Your task to perform on an android device: Open Google Chrome and open the bookmarks view Image 0: 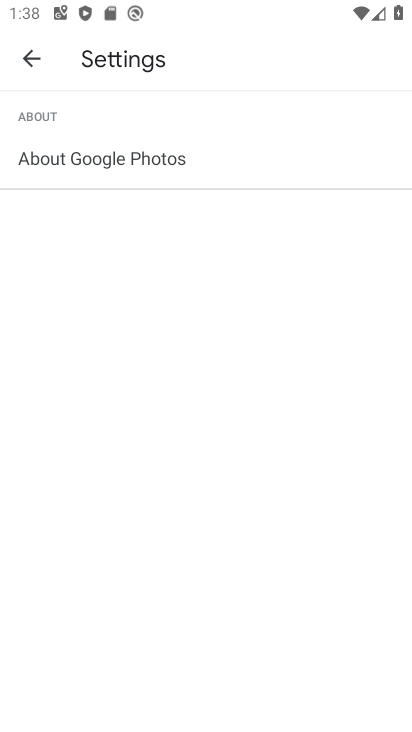
Step 0: drag from (230, 711) to (227, 153)
Your task to perform on an android device: Open Google Chrome and open the bookmarks view Image 1: 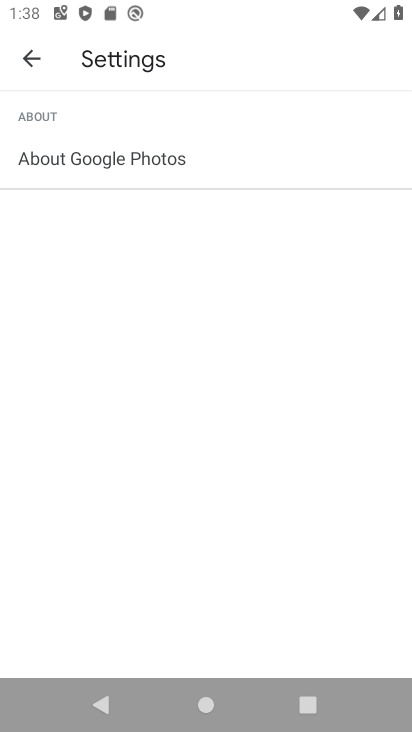
Step 1: press home button
Your task to perform on an android device: Open Google Chrome and open the bookmarks view Image 2: 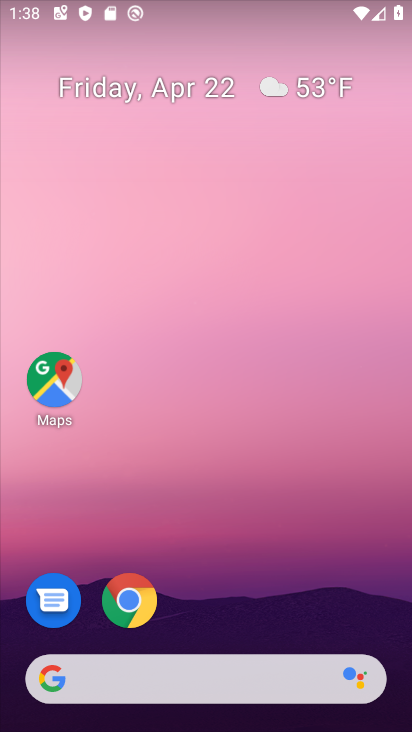
Step 2: drag from (225, 509) to (225, 176)
Your task to perform on an android device: Open Google Chrome and open the bookmarks view Image 3: 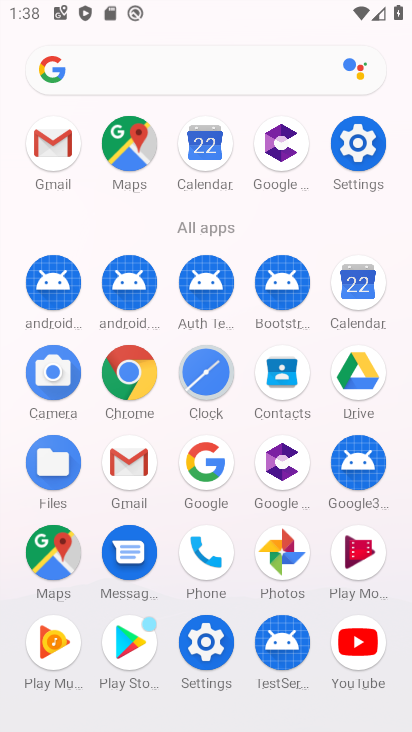
Step 3: click (132, 374)
Your task to perform on an android device: Open Google Chrome and open the bookmarks view Image 4: 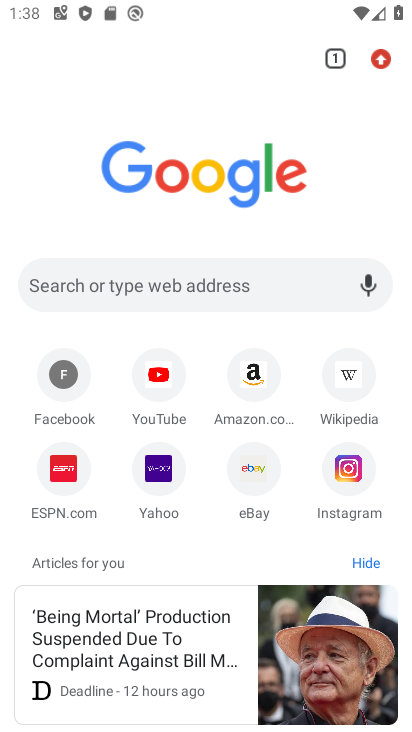
Step 4: click (382, 65)
Your task to perform on an android device: Open Google Chrome and open the bookmarks view Image 5: 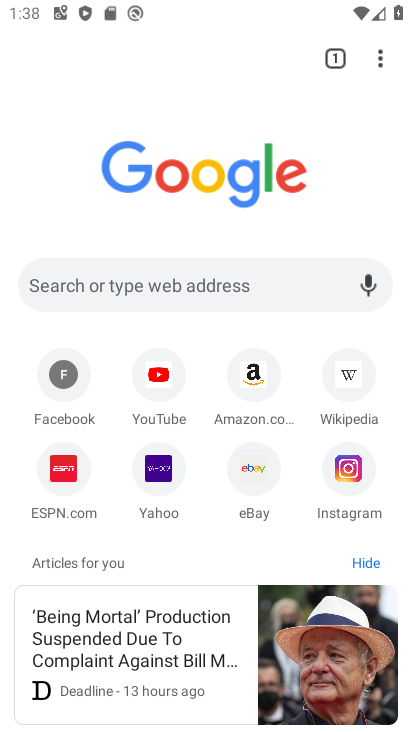
Step 5: click (379, 61)
Your task to perform on an android device: Open Google Chrome and open the bookmarks view Image 6: 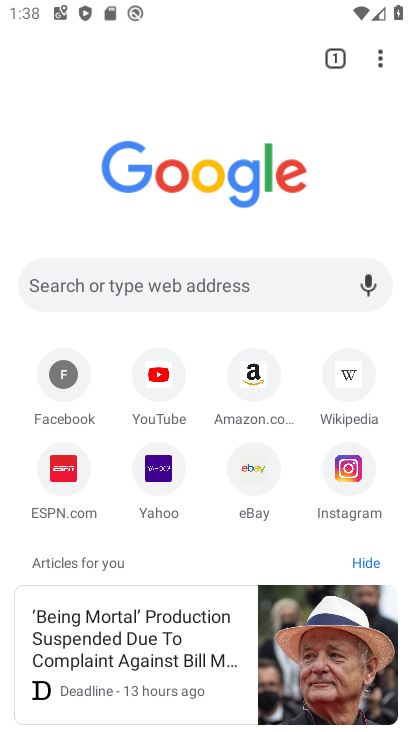
Step 6: click (380, 61)
Your task to perform on an android device: Open Google Chrome and open the bookmarks view Image 7: 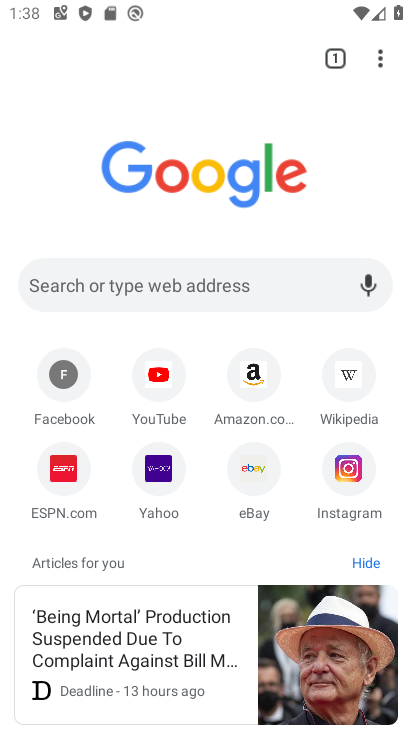
Step 7: task complete